Your task to perform on an android device: open chrome and create a bookmark for the current page Image 0: 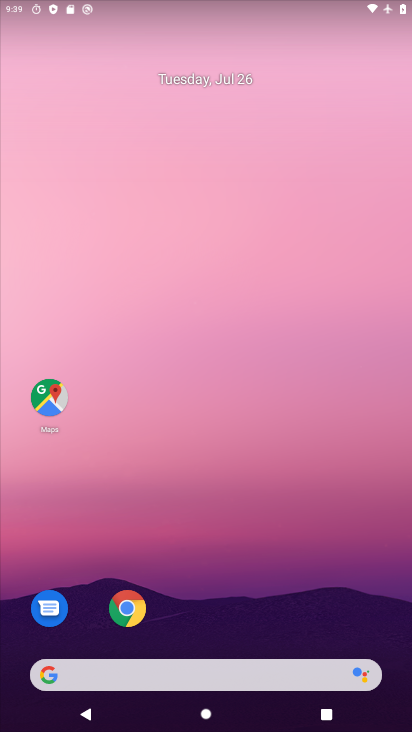
Step 0: click (147, 603)
Your task to perform on an android device: open chrome and create a bookmark for the current page Image 1: 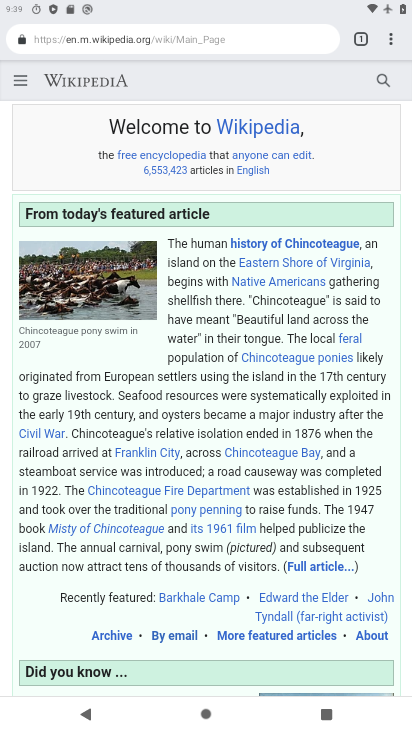
Step 1: click (368, 40)
Your task to perform on an android device: open chrome and create a bookmark for the current page Image 2: 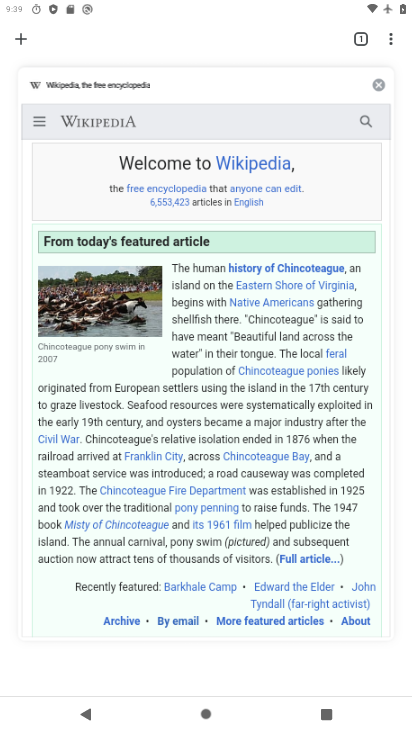
Step 2: click (23, 43)
Your task to perform on an android device: open chrome and create a bookmark for the current page Image 3: 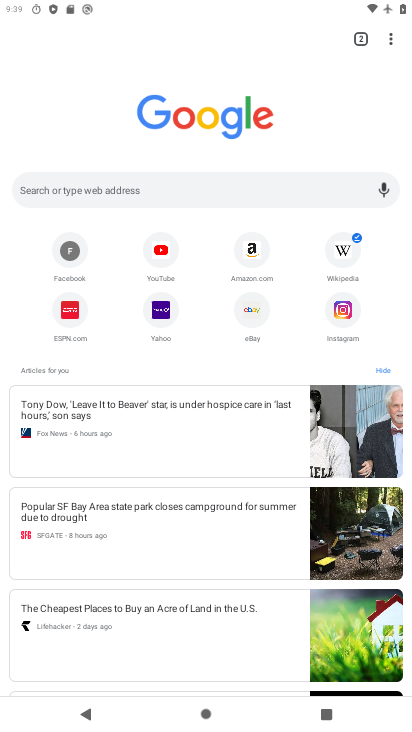
Step 3: drag from (202, 593) to (228, 110)
Your task to perform on an android device: open chrome and create a bookmark for the current page Image 4: 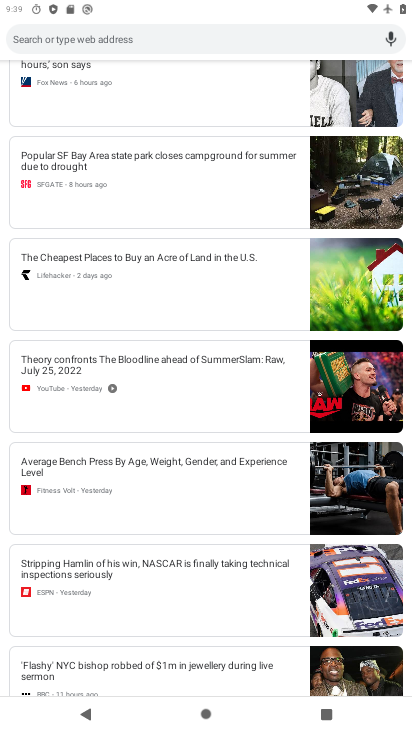
Step 4: click (124, 656)
Your task to perform on an android device: open chrome and create a bookmark for the current page Image 5: 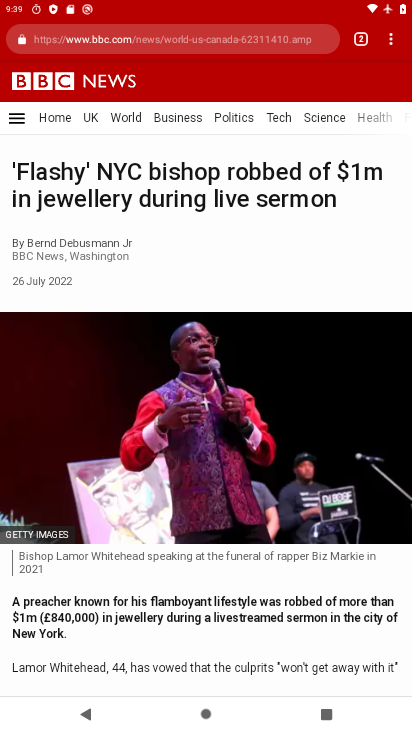
Step 5: click (386, 44)
Your task to perform on an android device: open chrome and create a bookmark for the current page Image 6: 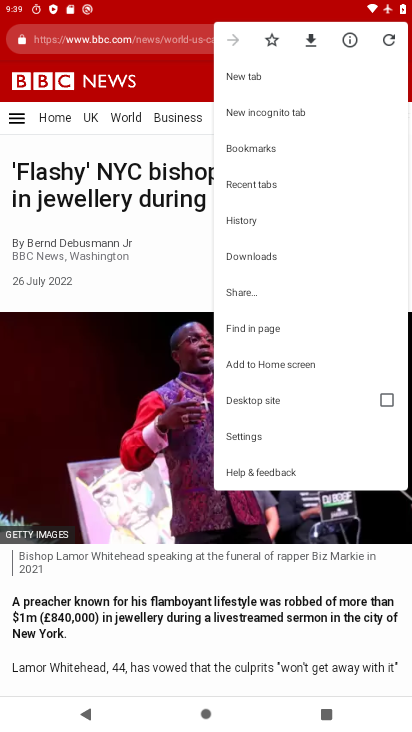
Step 6: click (275, 40)
Your task to perform on an android device: open chrome and create a bookmark for the current page Image 7: 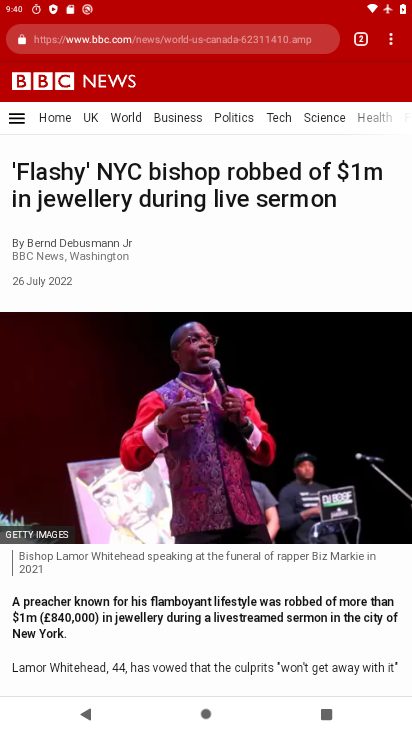
Step 7: task complete